Your task to perform on an android device: see creations saved in the google photos Image 0: 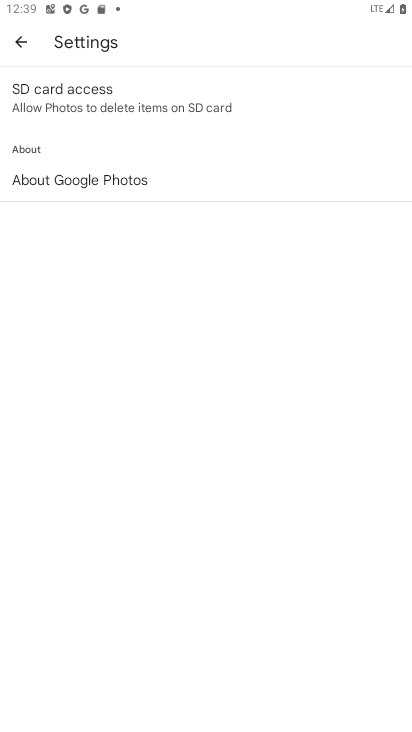
Step 0: drag from (193, 467) to (198, 224)
Your task to perform on an android device: see creations saved in the google photos Image 1: 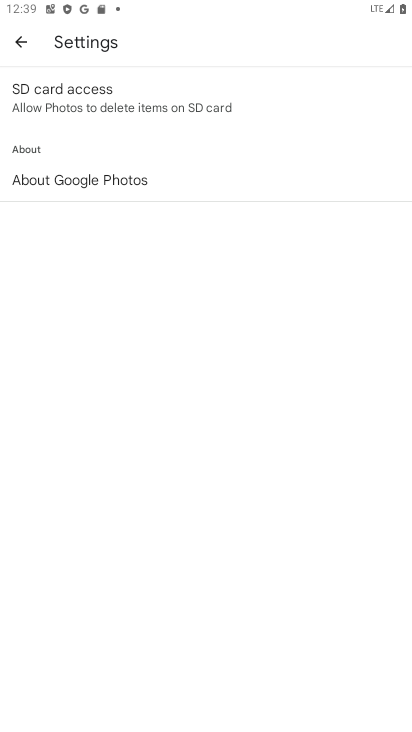
Step 1: click (130, 284)
Your task to perform on an android device: see creations saved in the google photos Image 2: 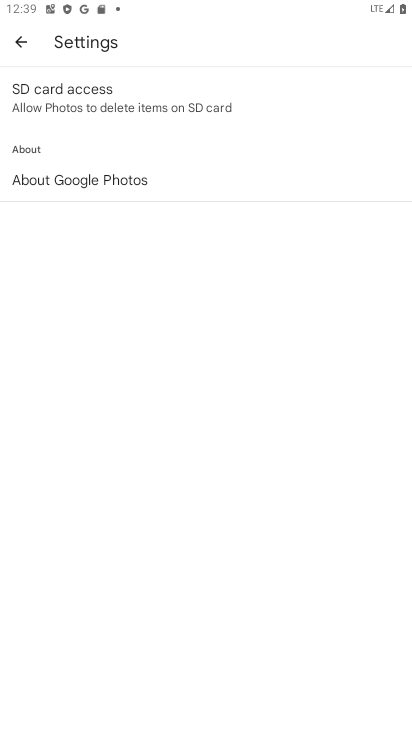
Step 2: press home button
Your task to perform on an android device: see creations saved in the google photos Image 3: 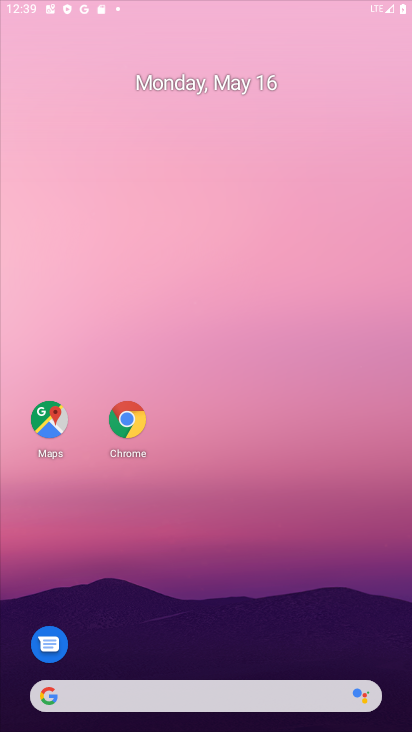
Step 3: drag from (156, 682) to (250, 377)
Your task to perform on an android device: see creations saved in the google photos Image 4: 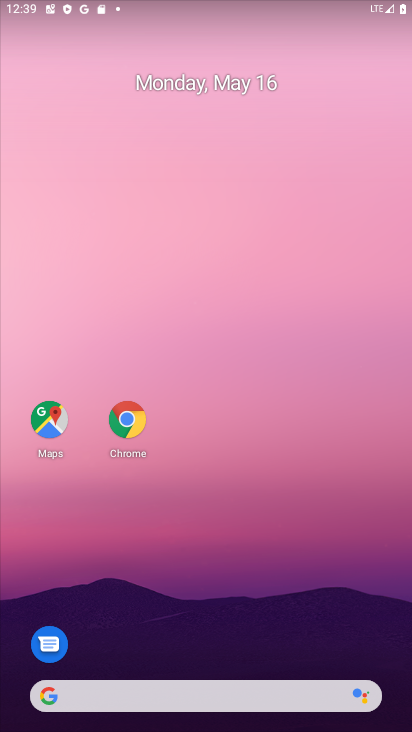
Step 4: drag from (188, 624) to (207, 115)
Your task to perform on an android device: see creations saved in the google photos Image 5: 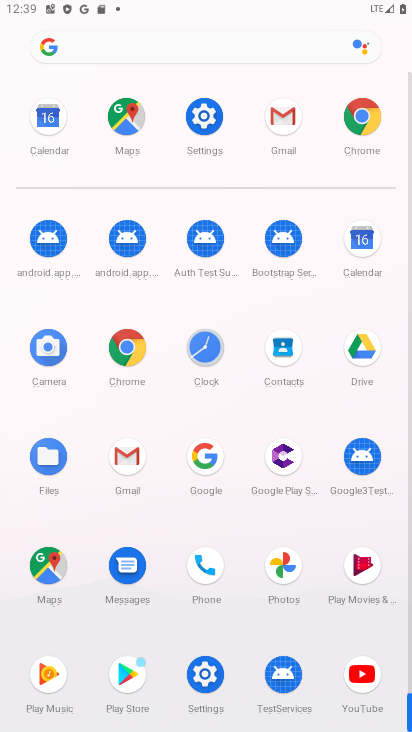
Step 5: click (275, 559)
Your task to perform on an android device: see creations saved in the google photos Image 6: 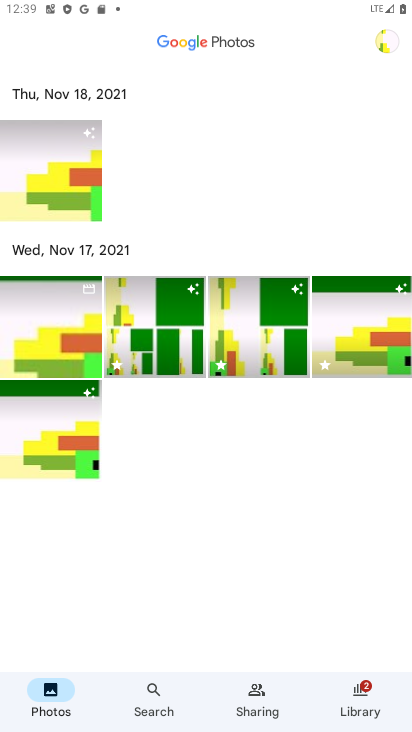
Step 6: click (137, 691)
Your task to perform on an android device: see creations saved in the google photos Image 7: 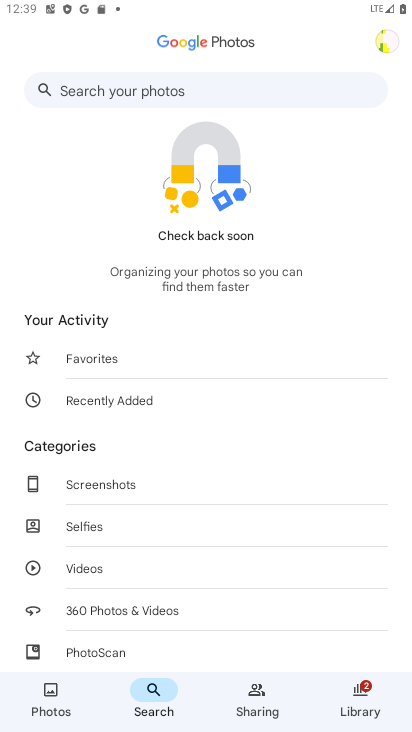
Step 7: drag from (230, 611) to (399, 82)
Your task to perform on an android device: see creations saved in the google photos Image 8: 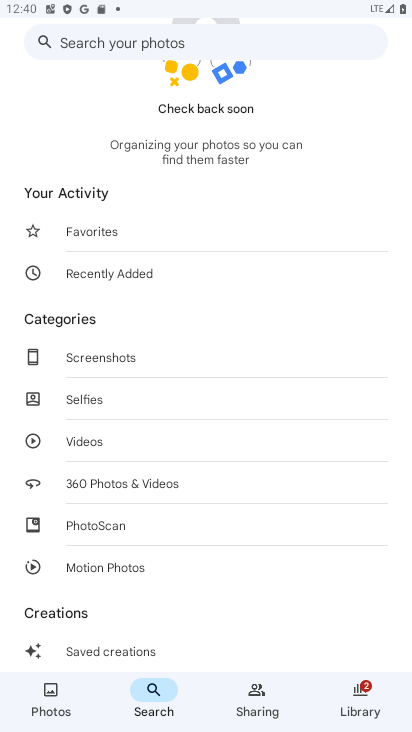
Step 8: click (99, 654)
Your task to perform on an android device: see creations saved in the google photos Image 9: 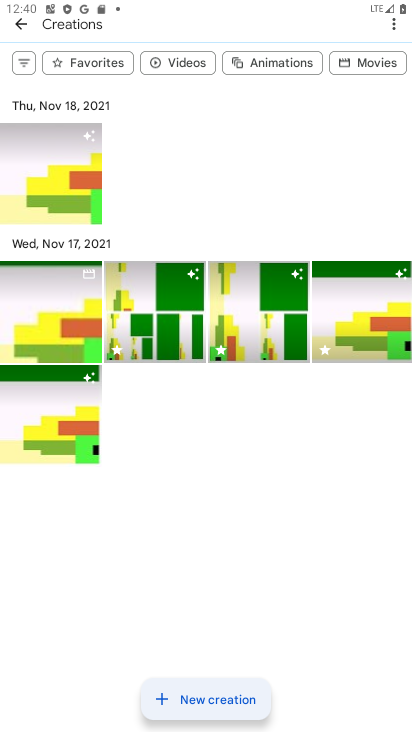
Step 9: click (65, 297)
Your task to perform on an android device: see creations saved in the google photos Image 10: 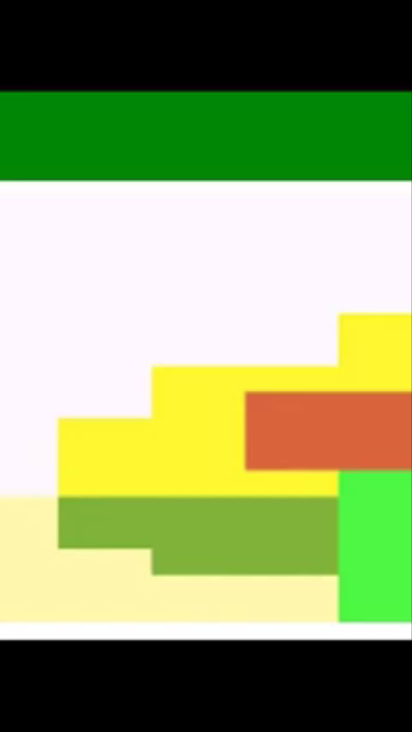
Step 10: task complete